Your task to perform on an android device: Open calendar and show me the second week of next month Image 0: 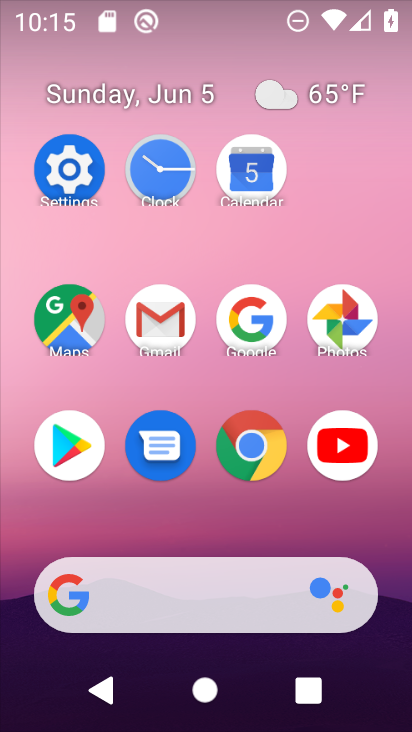
Step 0: click (253, 195)
Your task to perform on an android device: Open calendar and show me the second week of next month Image 1: 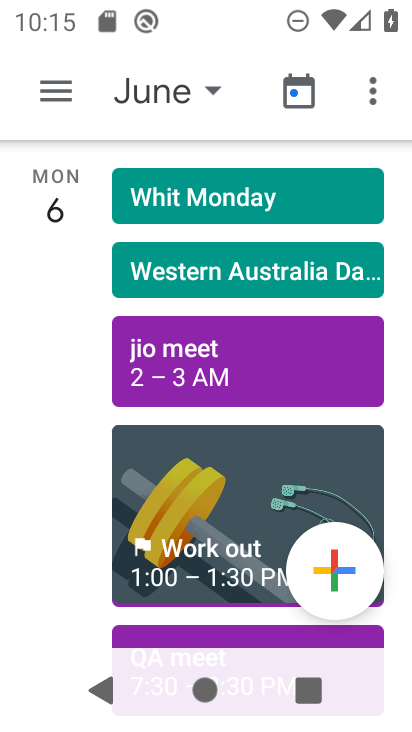
Step 1: click (162, 93)
Your task to perform on an android device: Open calendar and show me the second week of next month Image 2: 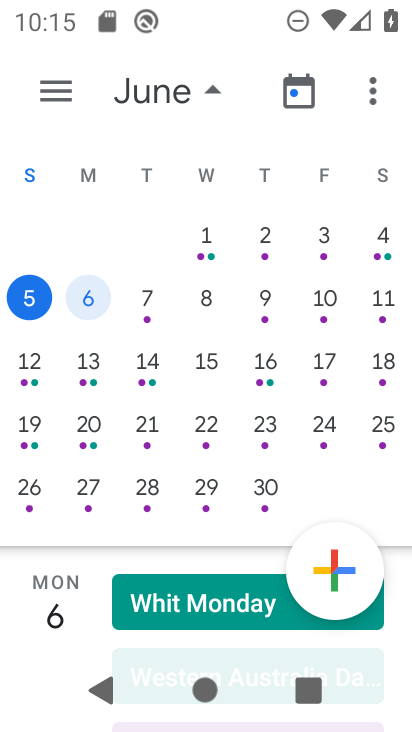
Step 2: drag from (366, 366) to (0, 269)
Your task to perform on an android device: Open calendar and show me the second week of next month Image 3: 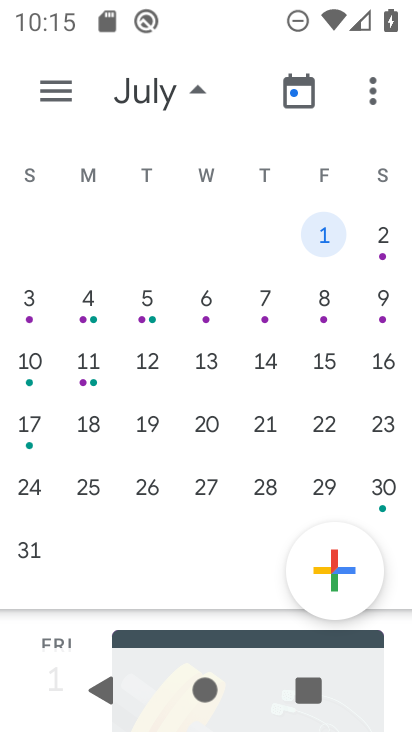
Step 3: click (41, 105)
Your task to perform on an android device: Open calendar and show me the second week of next month Image 4: 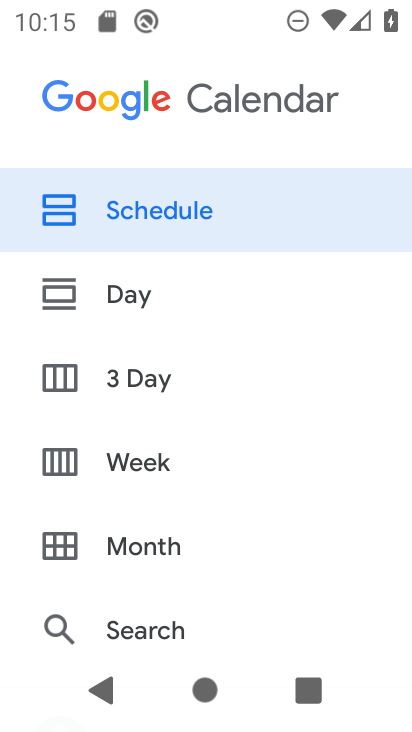
Step 4: click (207, 498)
Your task to perform on an android device: Open calendar and show me the second week of next month Image 5: 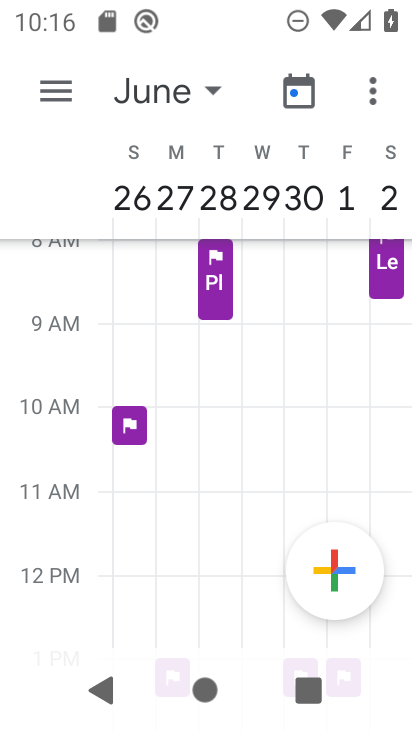
Step 5: task complete